Your task to perform on an android device: Show me recent news Image 0: 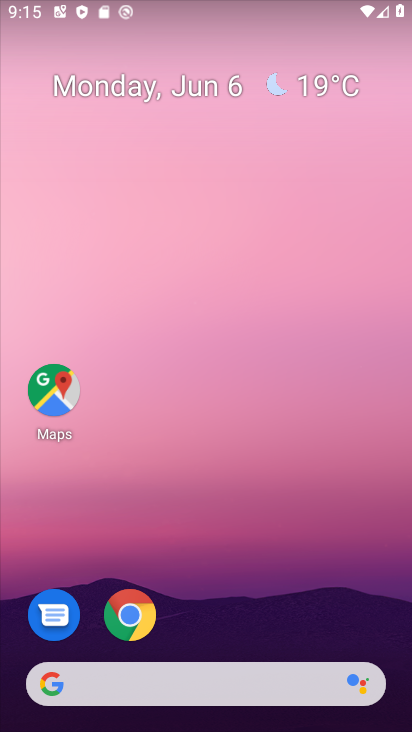
Step 0: click (194, 664)
Your task to perform on an android device: Show me recent news Image 1: 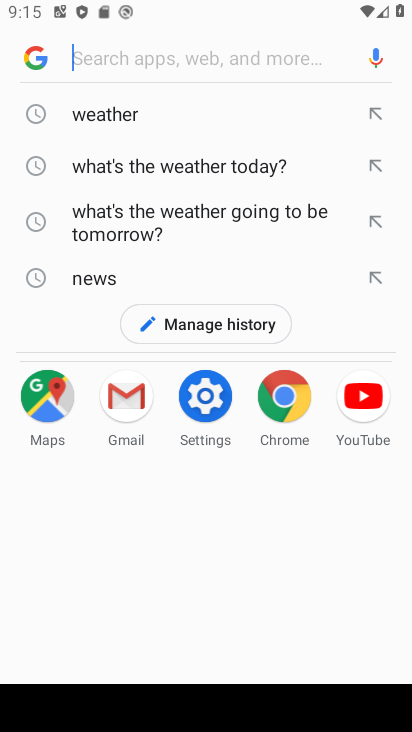
Step 1: click (90, 269)
Your task to perform on an android device: Show me recent news Image 2: 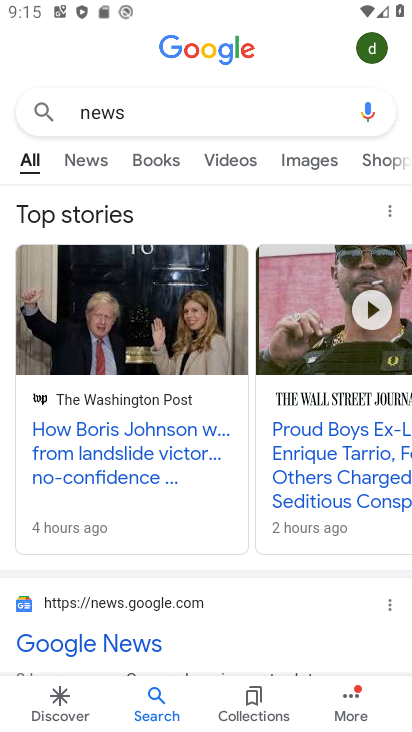
Step 2: click (99, 161)
Your task to perform on an android device: Show me recent news Image 3: 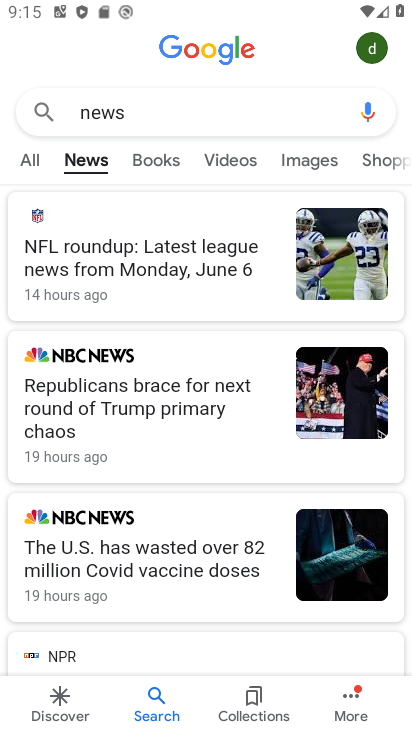
Step 3: task complete